Your task to perform on an android device: turn on priority inbox in the gmail app Image 0: 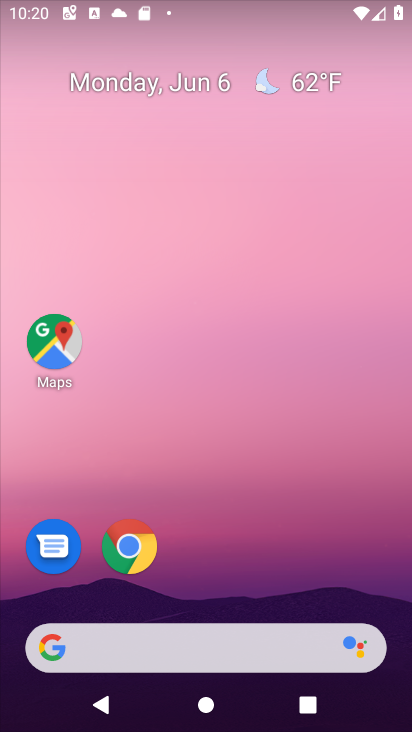
Step 0: drag from (404, 658) to (349, 116)
Your task to perform on an android device: turn on priority inbox in the gmail app Image 1: 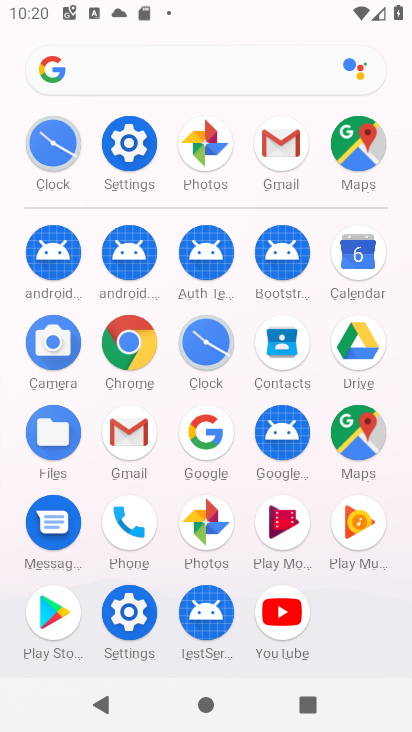
Step 1: click (130, 434)
Your task to perform on an android device: turn on priority inbox in the gmail app Image 2: 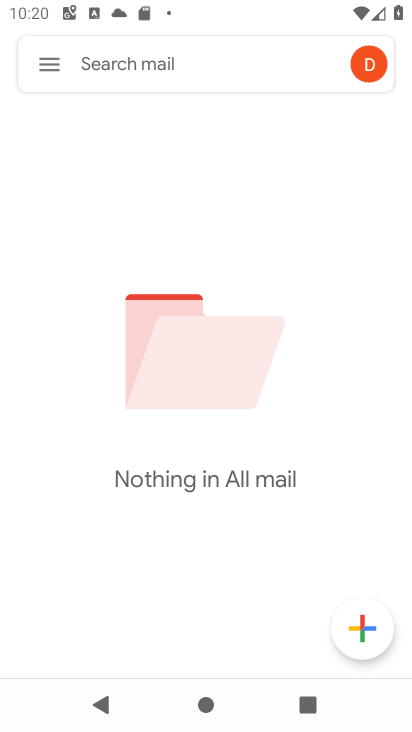
Step 2: click (50, 64)
Your task to perform on an android device: turn on priority inbox in the gmail app Image 3: 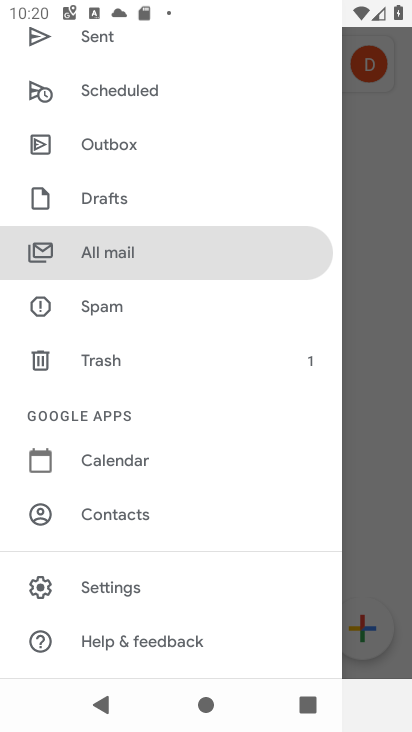
Step 3: click (119, 592)
Your task to perform on an android device: turn on priority inbox in the gmail app Image 4: 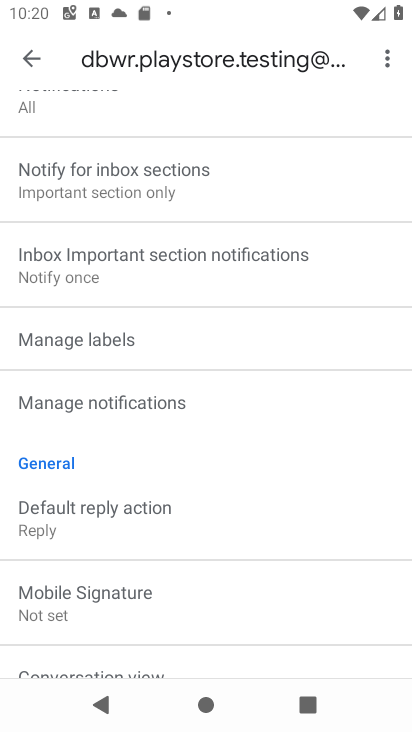
Step 4: drag from (241, 174) to (223, 482)
Your task to perform on an android device: turn on priority inbox in the gmail app Image 5: 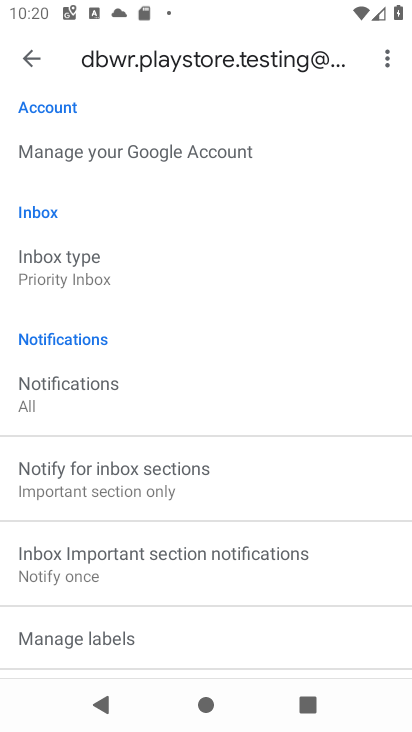
Step 5: click (43, 264)
Your task to perform on an android device: turn on priority inbox in the gmail app Image 6: 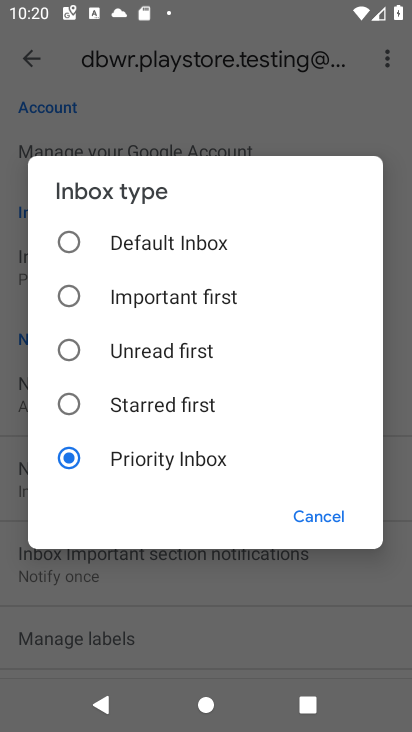
Step 6: task complete